Your task to perform on an android device: turn off sleep mode Image 0: 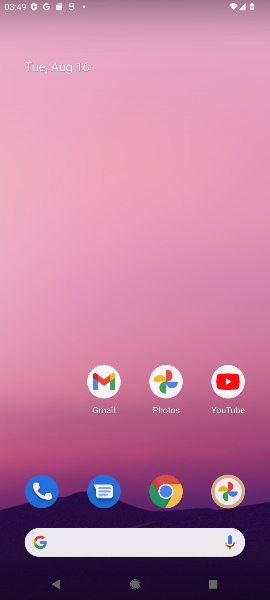
Step 0: press home button
Your task to perform on an android device: turn off sleep mode Image 1: 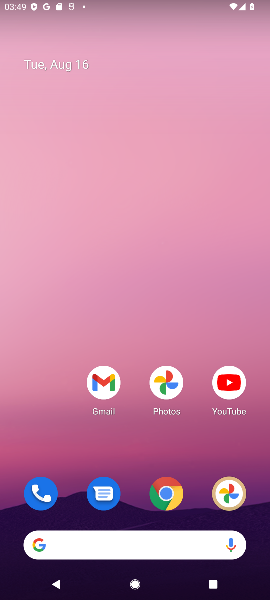
Step 1: drag from (67, 457) to (63, 91)
Your task to perform on an android device: turn off sleep mode Image 2: 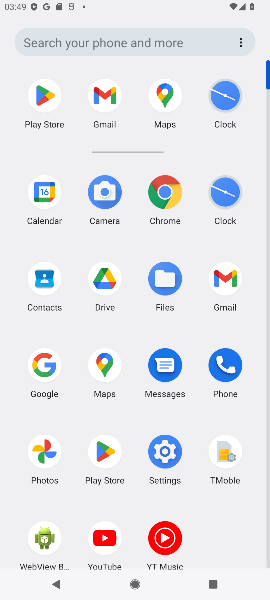
Step 2: click (164, 451)
Your task to perform on an android device: turn off sleep mode Image 3: 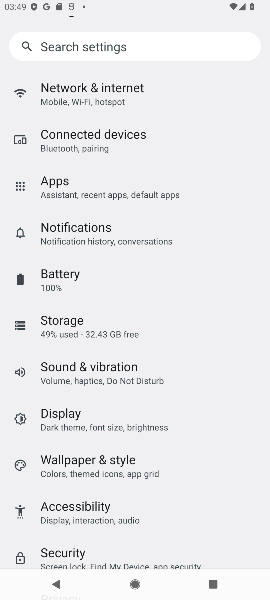
Step 3: drag from (220, 482) to (237, 387)
Your task to perform on an android device: turn off sleep mode Image 4: 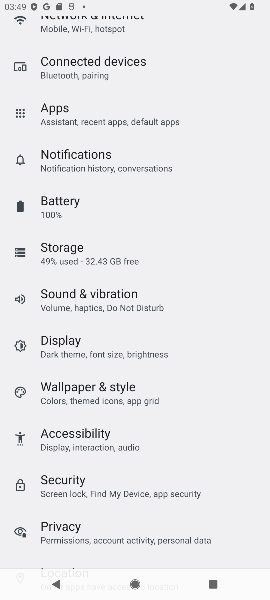
Step 4: drag from (240, 493) to (241, 369)
Your task to perform on an android device: turn off sleep mode Image 5: 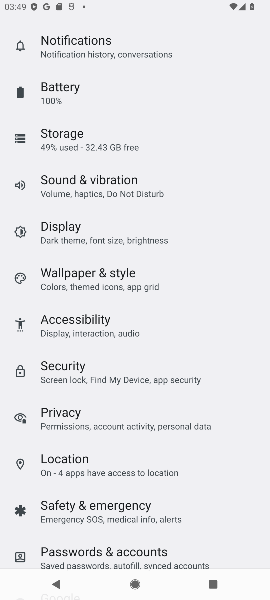
Step 5: drag from (227, 492) to (248, 365)
Your task to perform on an android device: turn off sleep mode Image 6: 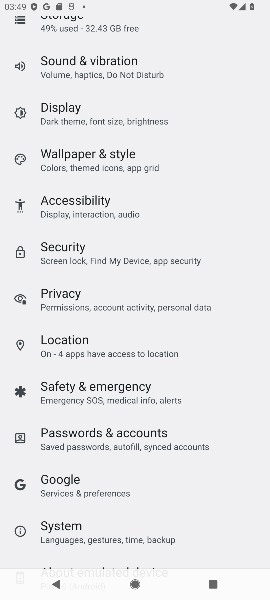
Step 6: drag from (250, 295) to (250, 402)
Your task to perform on an android device: turn off sleep mode Image 7: 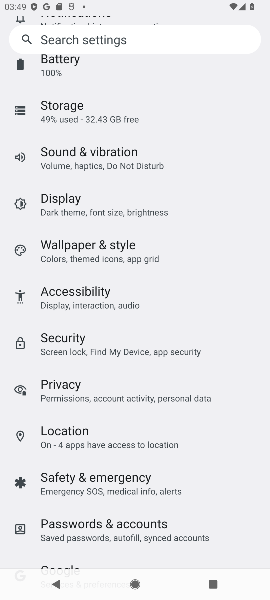
Step 7: drag from (243, 264) to (243, 376)
Your task to perform on an android device: turn off sleep mode Image 8: 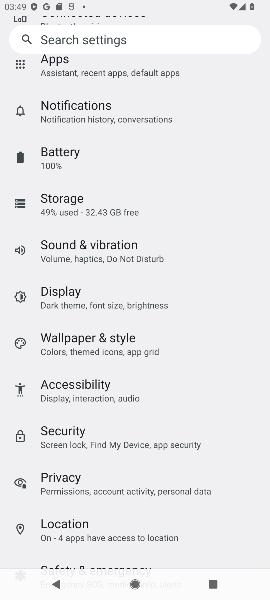
Step 8: drag from (236, 218) to (233, 359)
Your task to perform on an android device: turn off sleep mode Image 9: 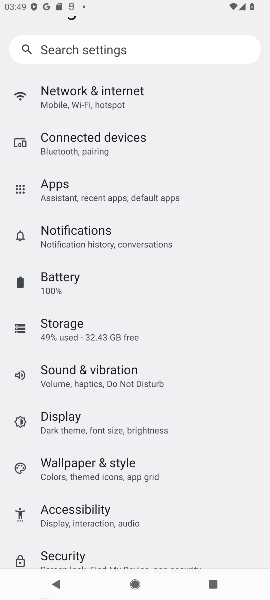
Step 9: click (199, 427)
Your task to perform on an android device: turn off sleep mode Image 10: 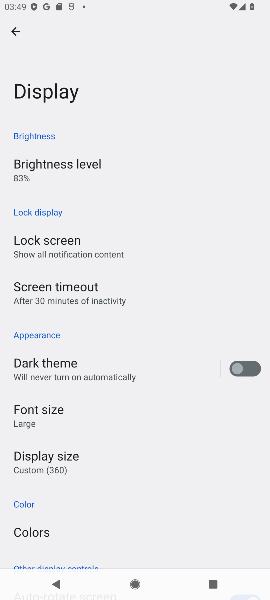
Step 10: task complete